Your task to perform on an android device: toggle pop-ups in chrome Image 0: 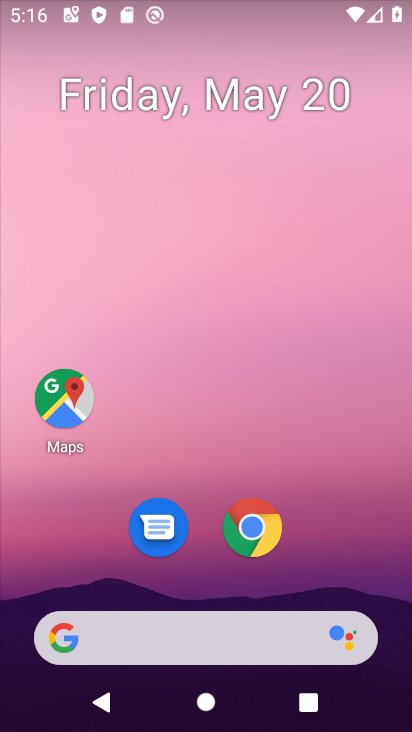
Step 0: drag from (331, 608) to (384, 4)
Your task to perform on an android device: toggle pop-ups in chrome Image 1: 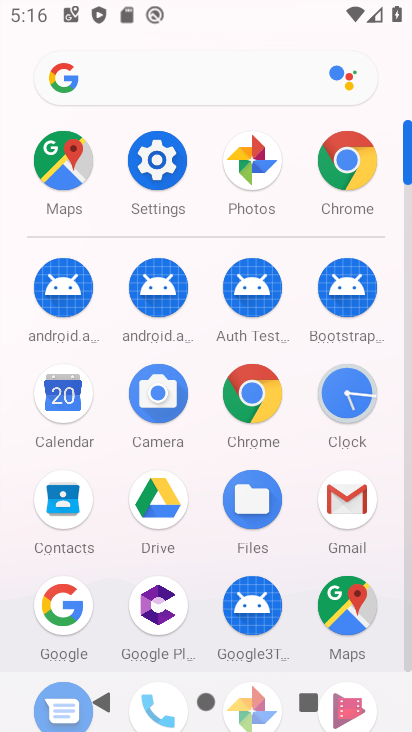
Step 1: click (249, 407)
Your task to perform on an android device: toggle pop-ups in chrome Image 2: 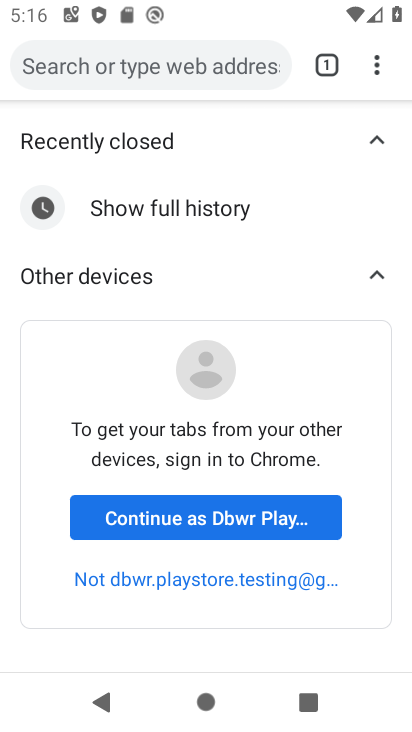
Step 2: drag from (381, 72) to (172, 552)
Your task to perform on an android device: toggle pop-ups in chrome Image 3: 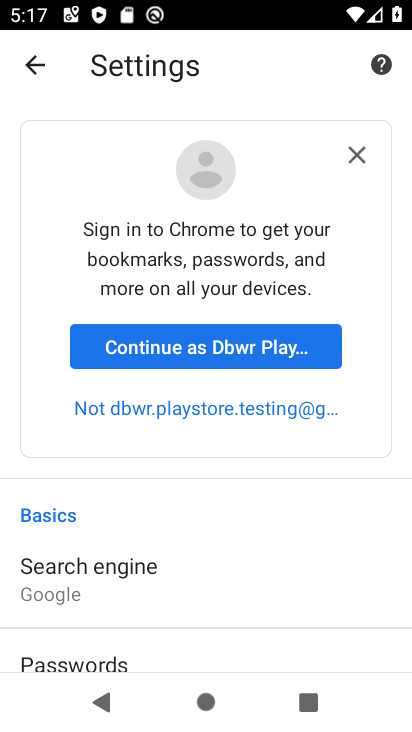
Step 3: drag from (283, 657) to (336, 157)
Your task to perform on an android device: toggle pop-ups in chrome Image 4: 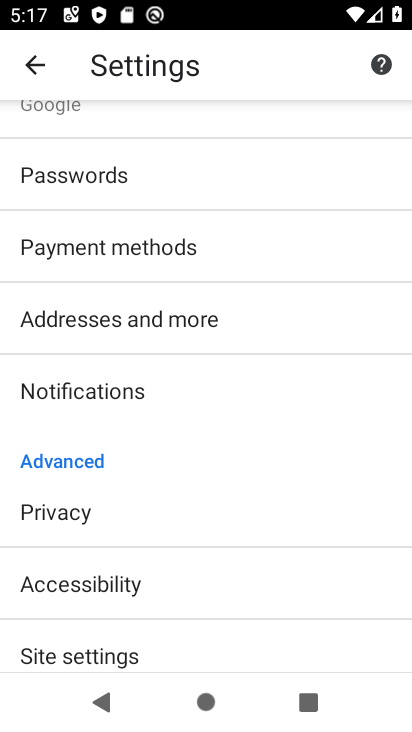
Step 4: click (183, 640)
Your task to perform on an android device: toggle pop-ups in chrome Image 5: 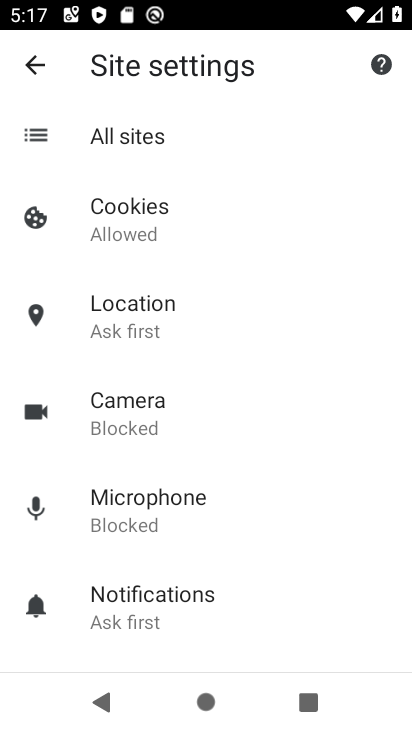
Step 5: drag from (249, 610) to (257, 162)
Your task to perform on an android device: toggle pop-ups in chrome Image 6: 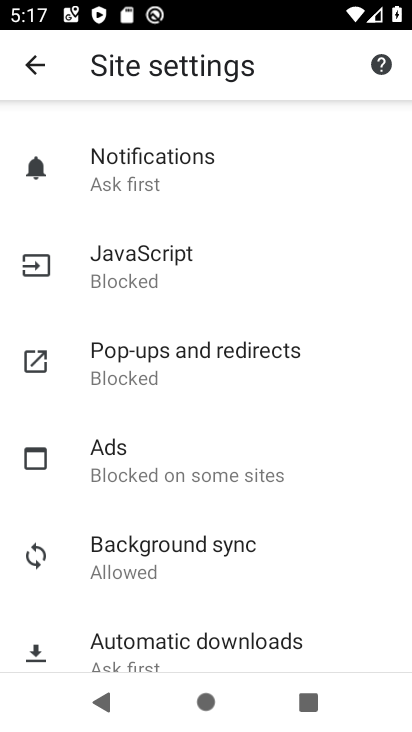
Step 6: click (268, 356)
Your task to perform on an android device: toggle pop-ups in chrome Image 7: 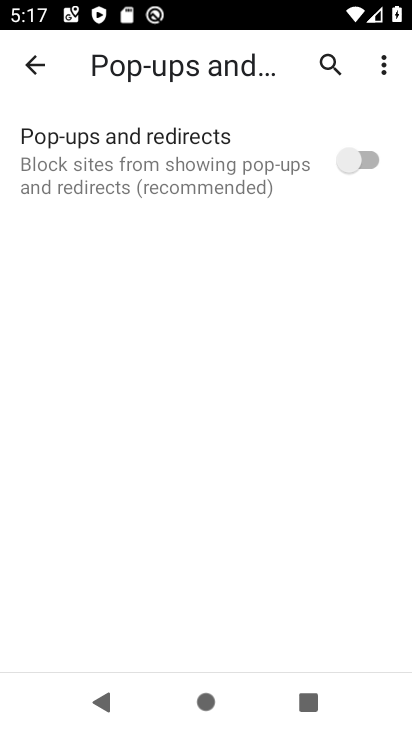
Step 7: click (366, 161)
Your task to perform on an android device: toggle pop-ups in chrome Image 8: 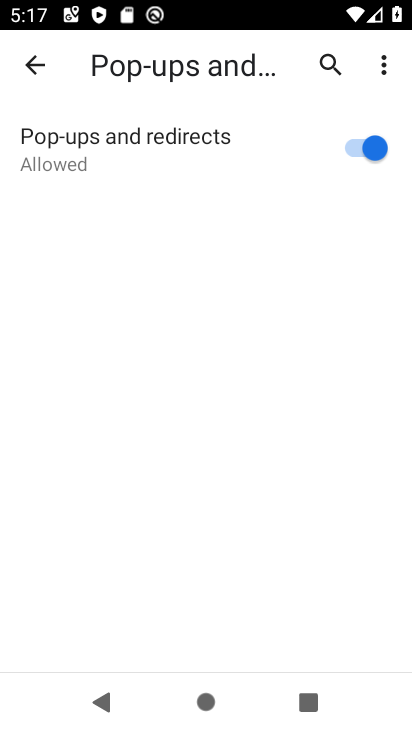
Step 8: task complete